Your task to perform on an android device: turn off airplane mode Image 0: 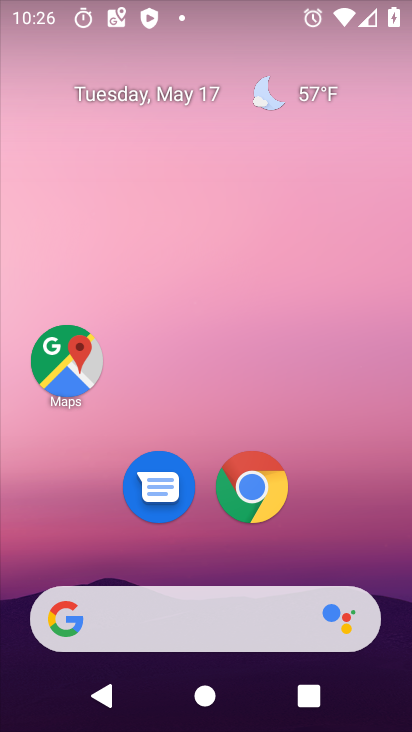
Step 0: drag from (226, 722) to (247, 177)
Your task to perform on an android device: turn off airplane mode Image 1: 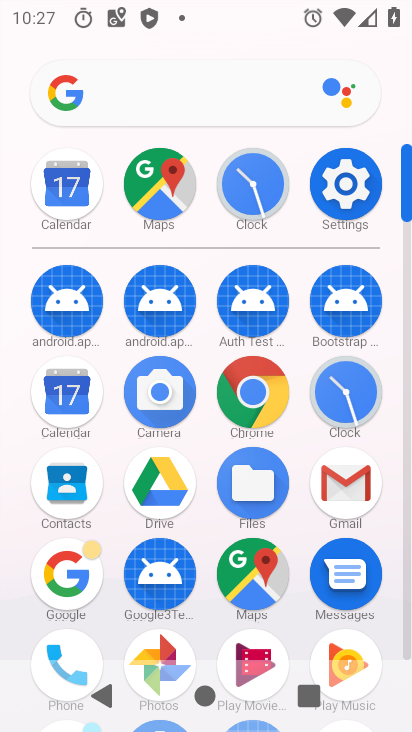
Step 1: click (358, 185)
Your task to perform on an android device: turn off airplane mode Image 2: 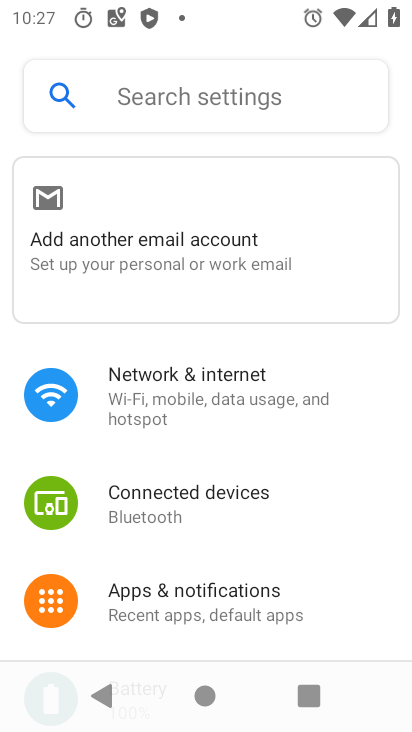
Step 2: click (159, 395)
Your task to perform on an android device: turn off airplane mode Image 3: 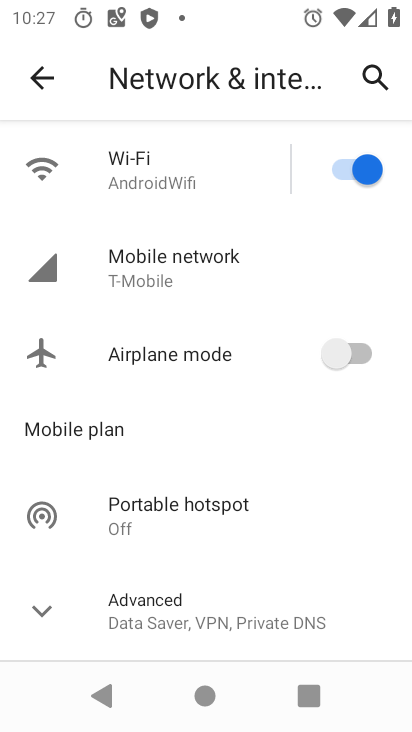
Step 3: task complete